Your task to perform on an android device: show emergency info Image 0: 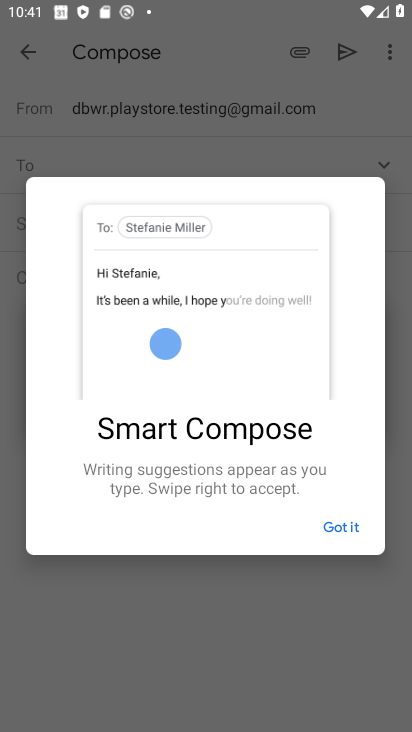
Step 0: press home button
Your task to perform on an android device: show emergency info Image 1: 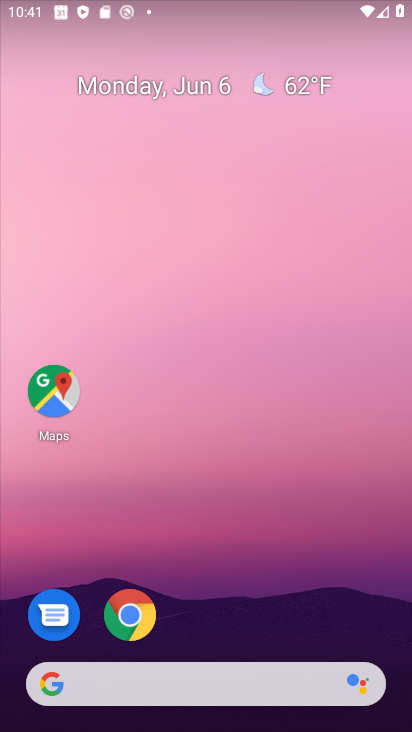
Step 1: drag from (213, 680) to (236, 62)
Your task to perform on an android device: show emergency info Image 2: 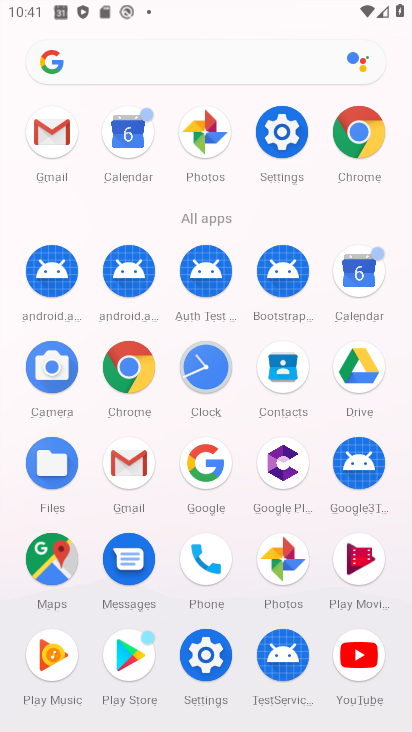
Step 2: click (280, 145)
Your task to perform on an android device: show emergency info Image 3: 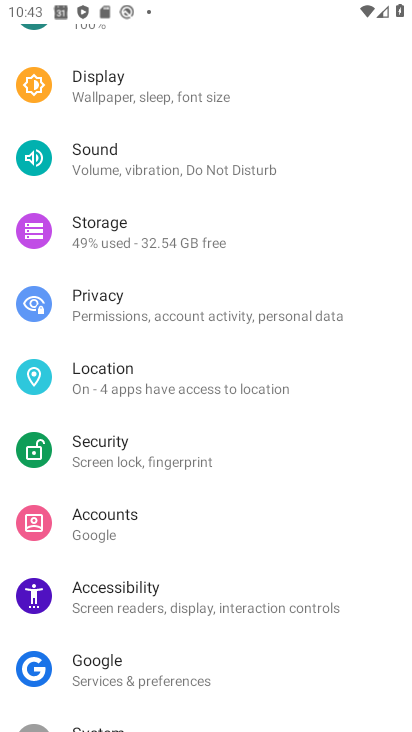
Step 3: drag from (188, 640) to (190, 233)
Your task to perform on an android device: show emergency info Image 4: 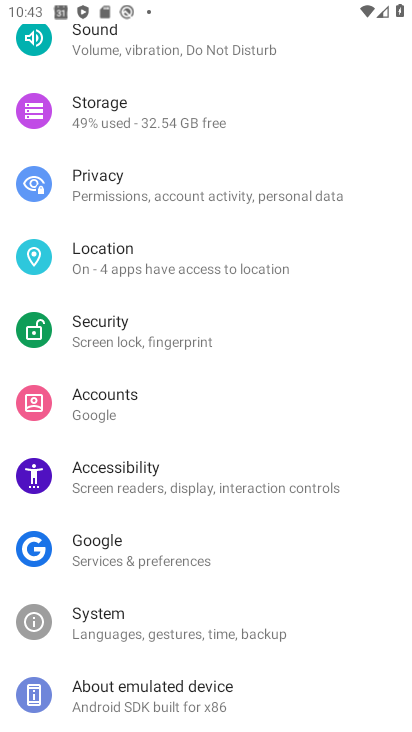
Step 4: click (204, 691)
Your task to perform on an android device: show emergency info Image 5: 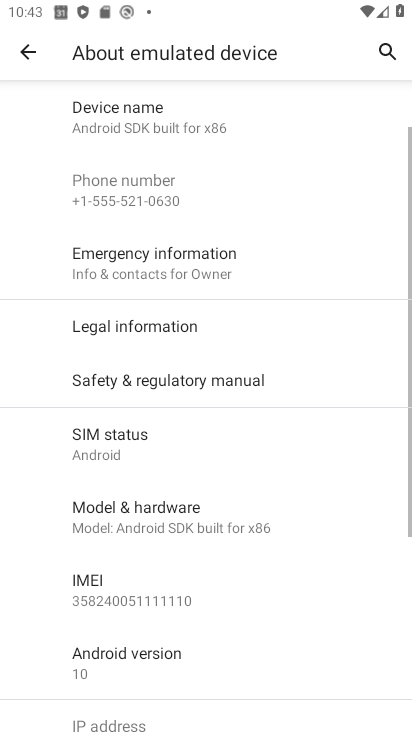
Step 5: click (163, 265)
Your task to perform on an android device: show emergency info Image 6: 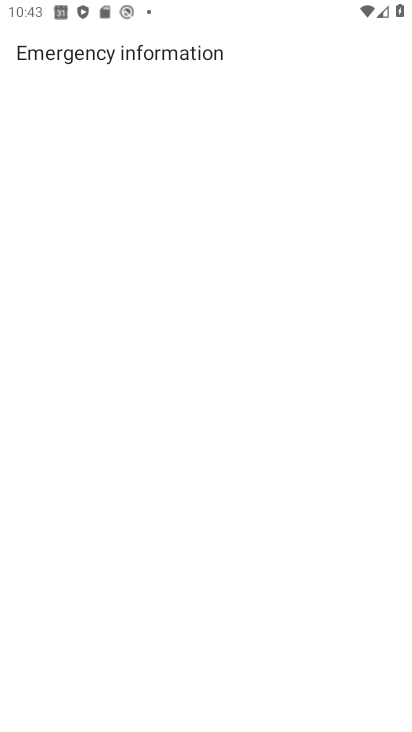
Step 6: task complete